Your task to perform on an android device: show emergency info Image 0: 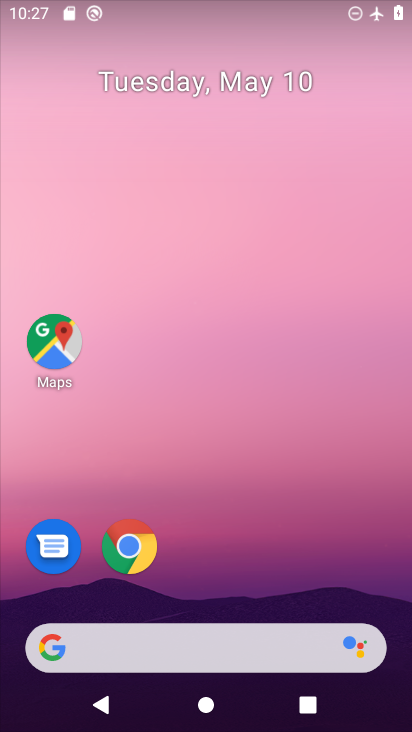
Step 0: drag from (311, 568) to (310, 35)
Your task to perform on an android device: show emergency info Image 1: 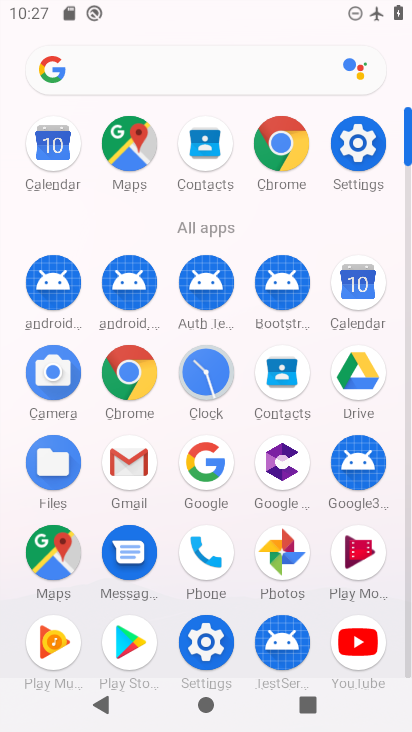
Step 1: click (360, 136)
Your task to perform on an android device: show emergency info Image 2: 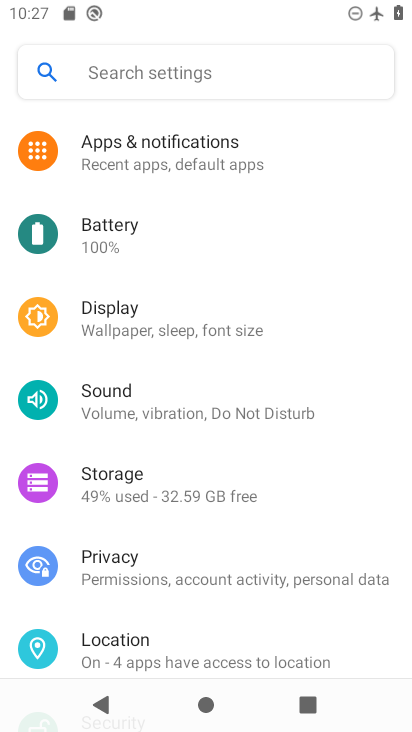
Step 2: drag from (309, 602) to (168, 68)
Your task to perform on an android device: show emergency info Image 3: 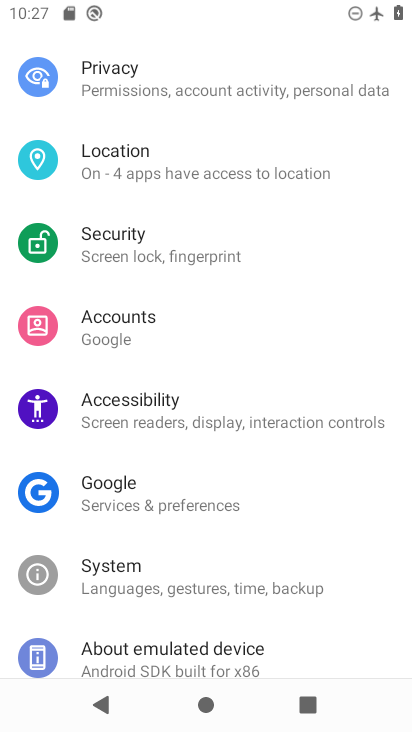
Step 3: drag from (207, 553) to (221, 136)
Your task to perform on an android device: show emergency info Image 4: 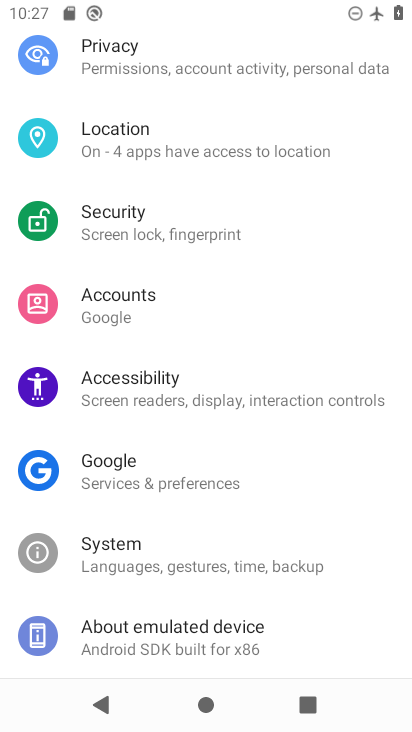
Step 4: click (157, 642)
Your task to perform on an android device: show emergency info Image 5: 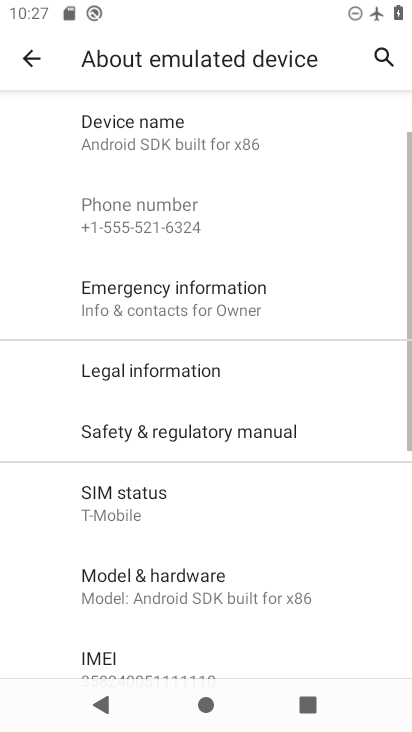
Step 5: click (212, 295)
Your task to perform on an android device: show emergency info Image 6: 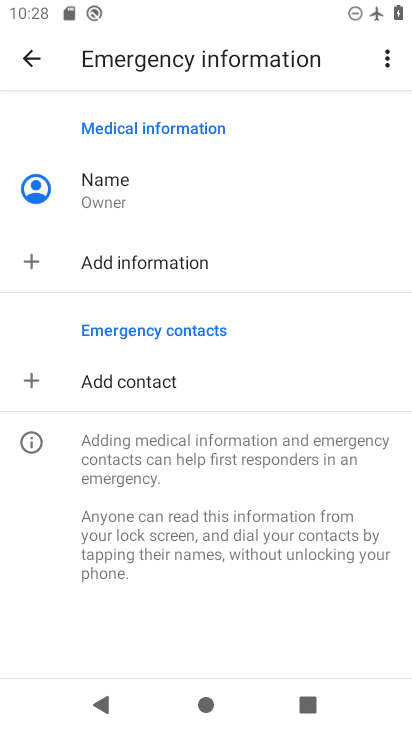
Step 6: task complete